Your task to perform on an android device: Show me recent news Image 0: 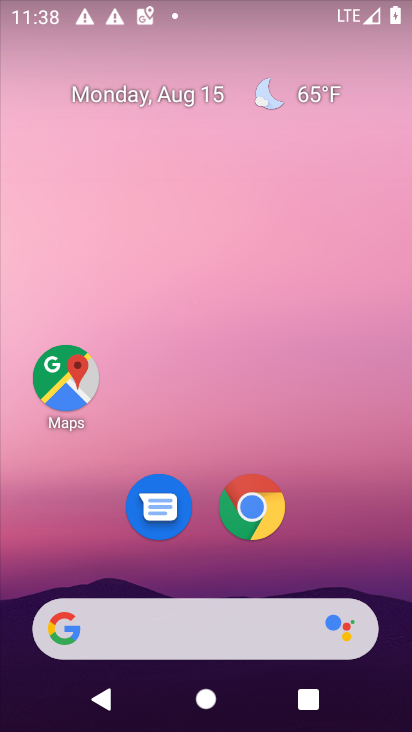
Step 0: drag from (200, 565) to (200, 16)
Your task to perform on an android device: Show me recent news Image 1: 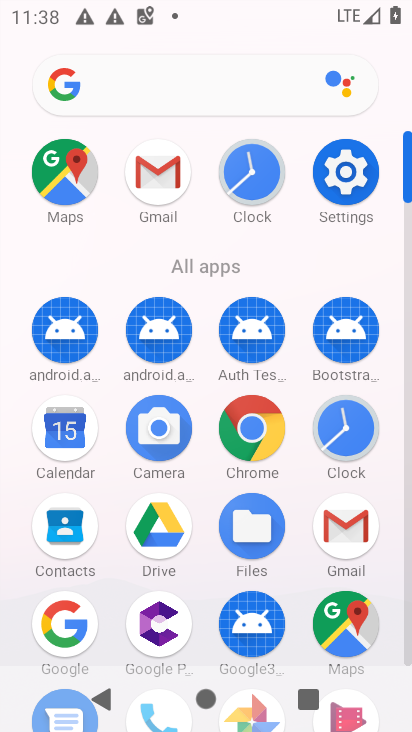
Step 1: click (58, 623)
Your task to perform on an android device: Show me recent news Image 2: 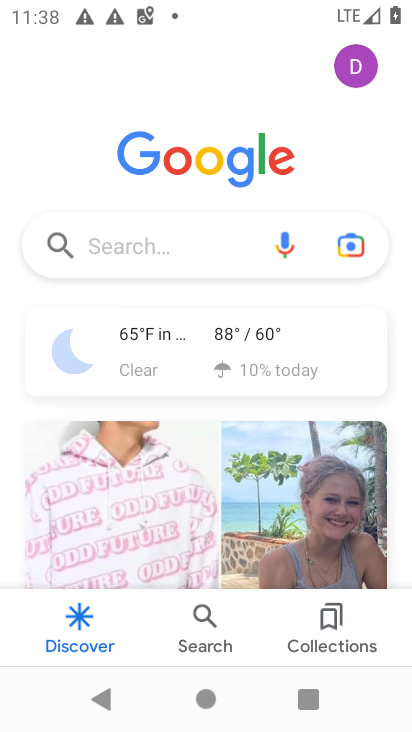
Step 2: task complete